Your task to perform on an android device: Open battery settings Image 0: 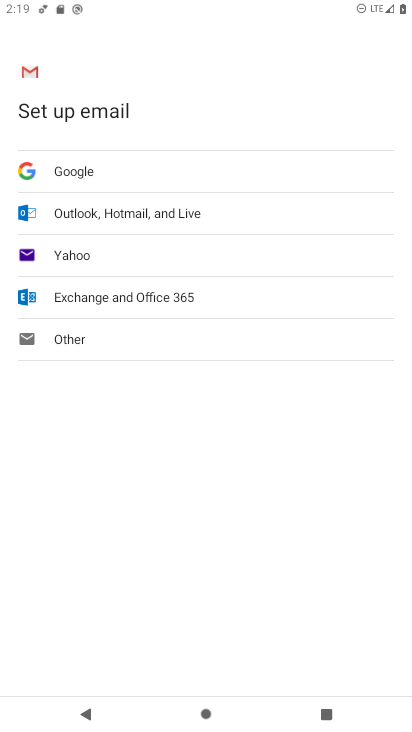
Step 0: press home button
Your task to perform on an android device: Open battery settings Image 1: 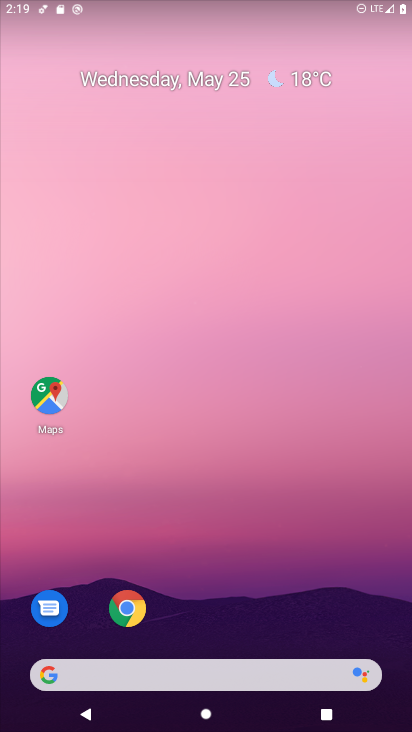
Step 1: drag from (373, 623) to (346, 135)
Your task to perform on an android device: Open battery settings Image 2: 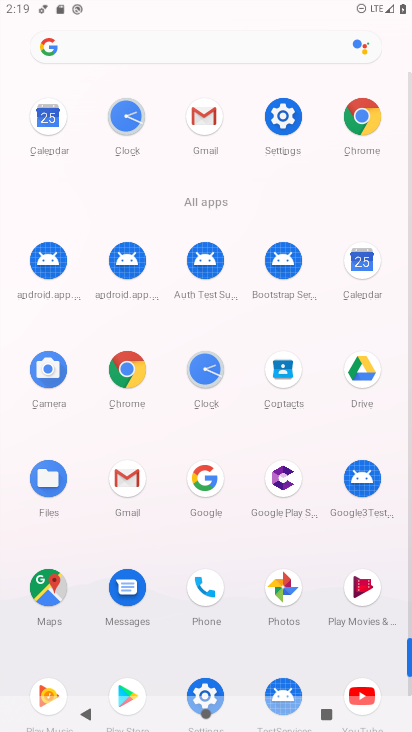
Step 2: click (203, 695)
Your task to perform on an android device: Open battery settings Image 3: 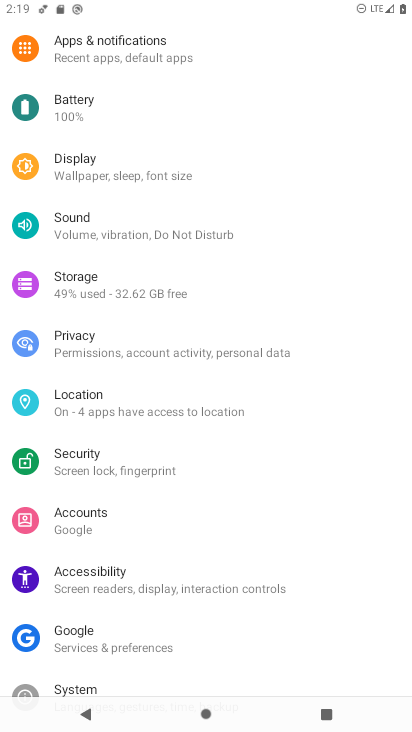
Step 3: click (66, 106)
Your task to perform on an android device: Open battery settings Image 4: 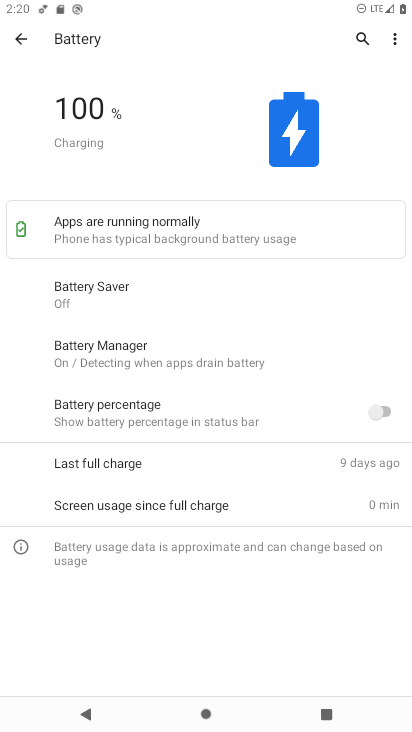
Step 4: task complete